Your task to perform on an android device: Open calendar and show me the fourth week of next month Image 0: 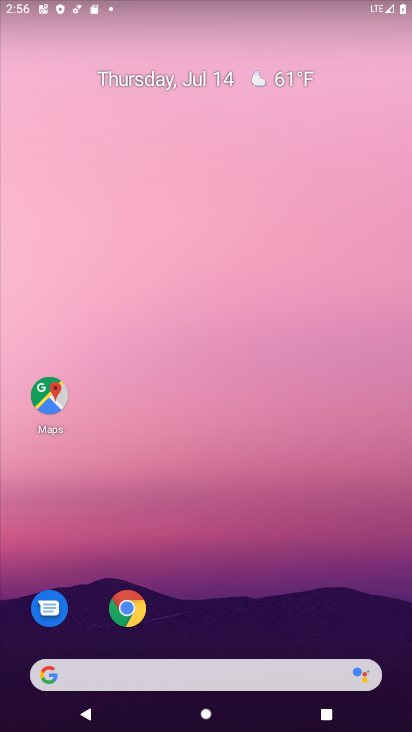
Step 0: drag from (224, 659) to (236, 335)
Your task to perform on an android device: Open calendar and show me the fourth week of next month Image 1: 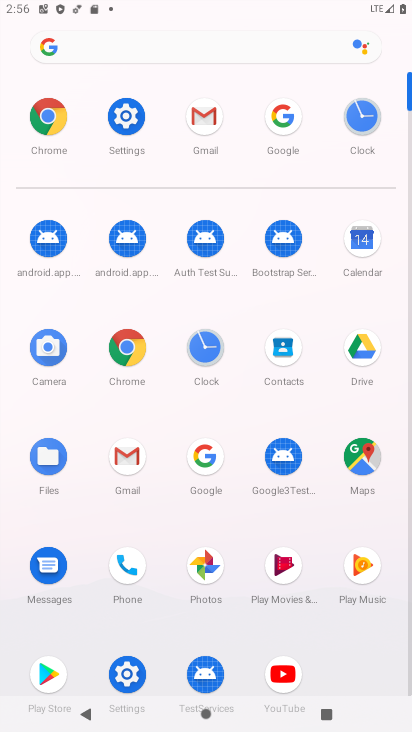
Step 1: click (348, 234)
Your task to perform on an android device: Open calendar and show me the fourth week of next month Image 2: 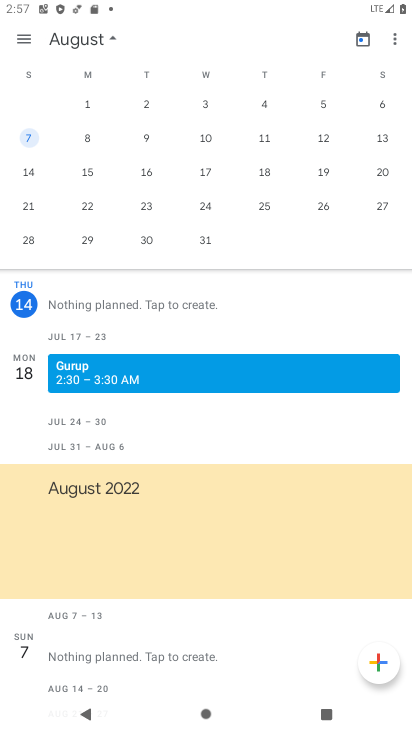
Step 2: click (23, 199)
Your task to perform on an android device: Open calendar and show me the fourth week of next month Image 3: 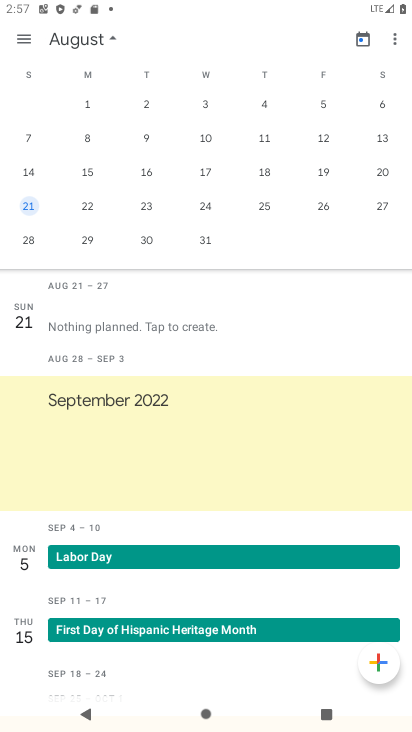
Step 3: task complete